Your task to perform on an android device: Do I have any events tomorrow? Image 0: 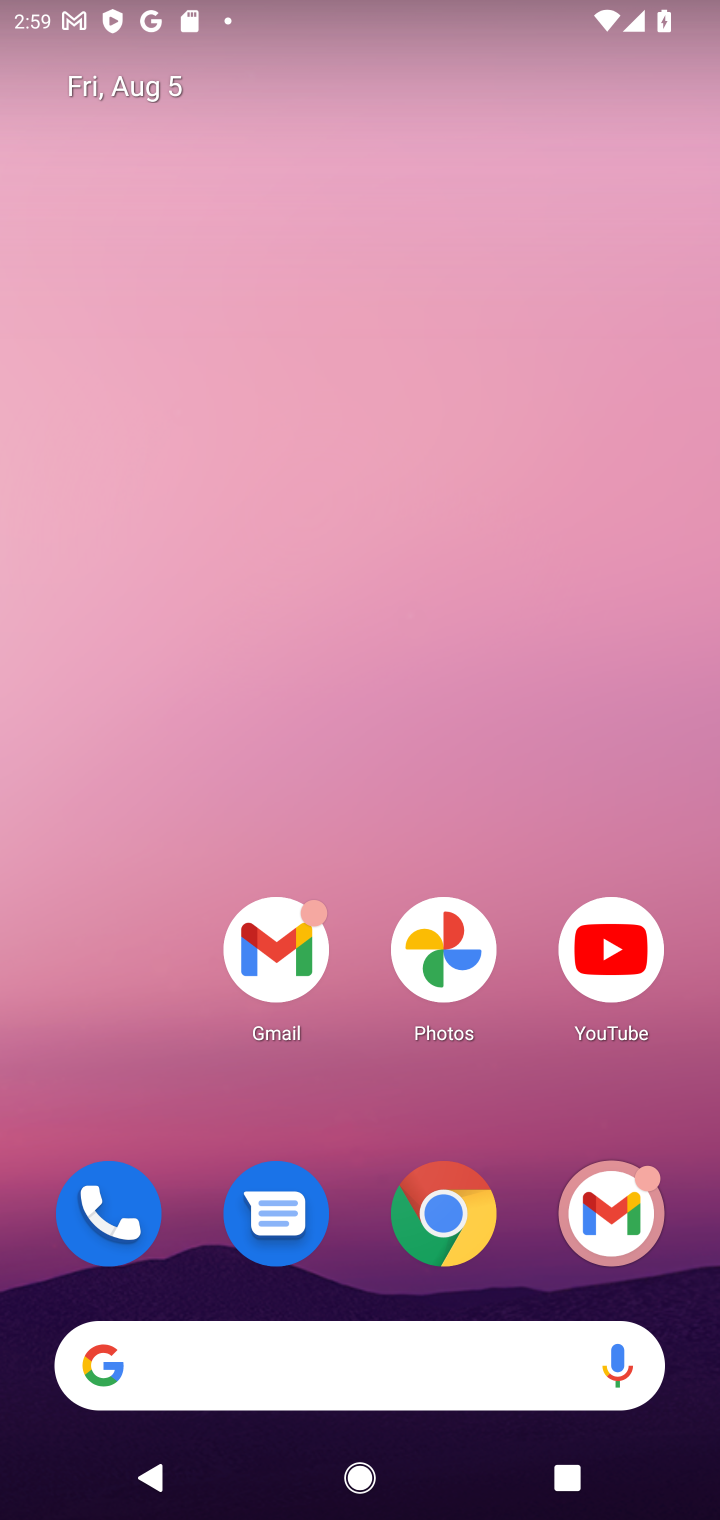
Step 0: drag from (188, 1274) to (296, 127)
Your task to perform on an android device: Do I have any events tomorrow? Image 1: 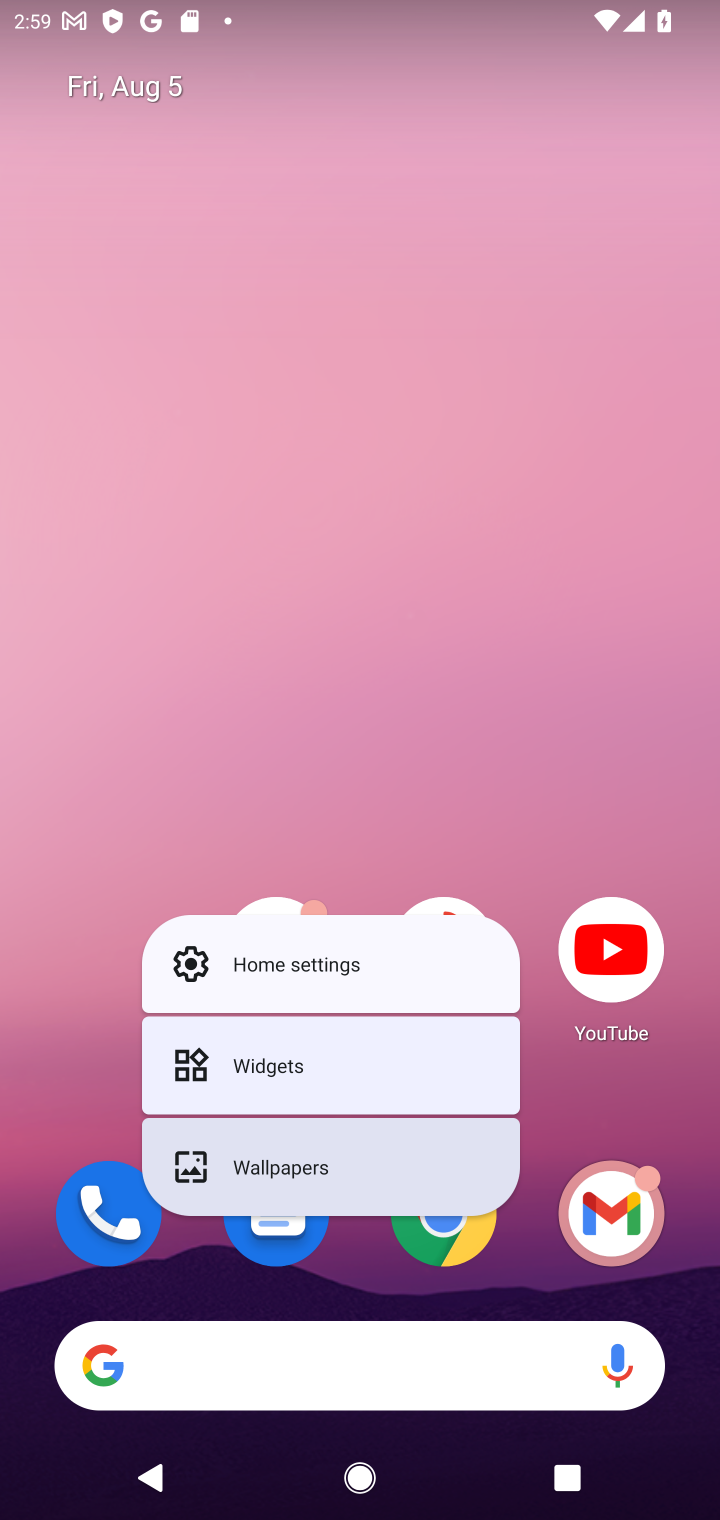
Step 1: click (312, 609)
Your task to perform on an android device: Do I have any events tomorrow? Image 2: 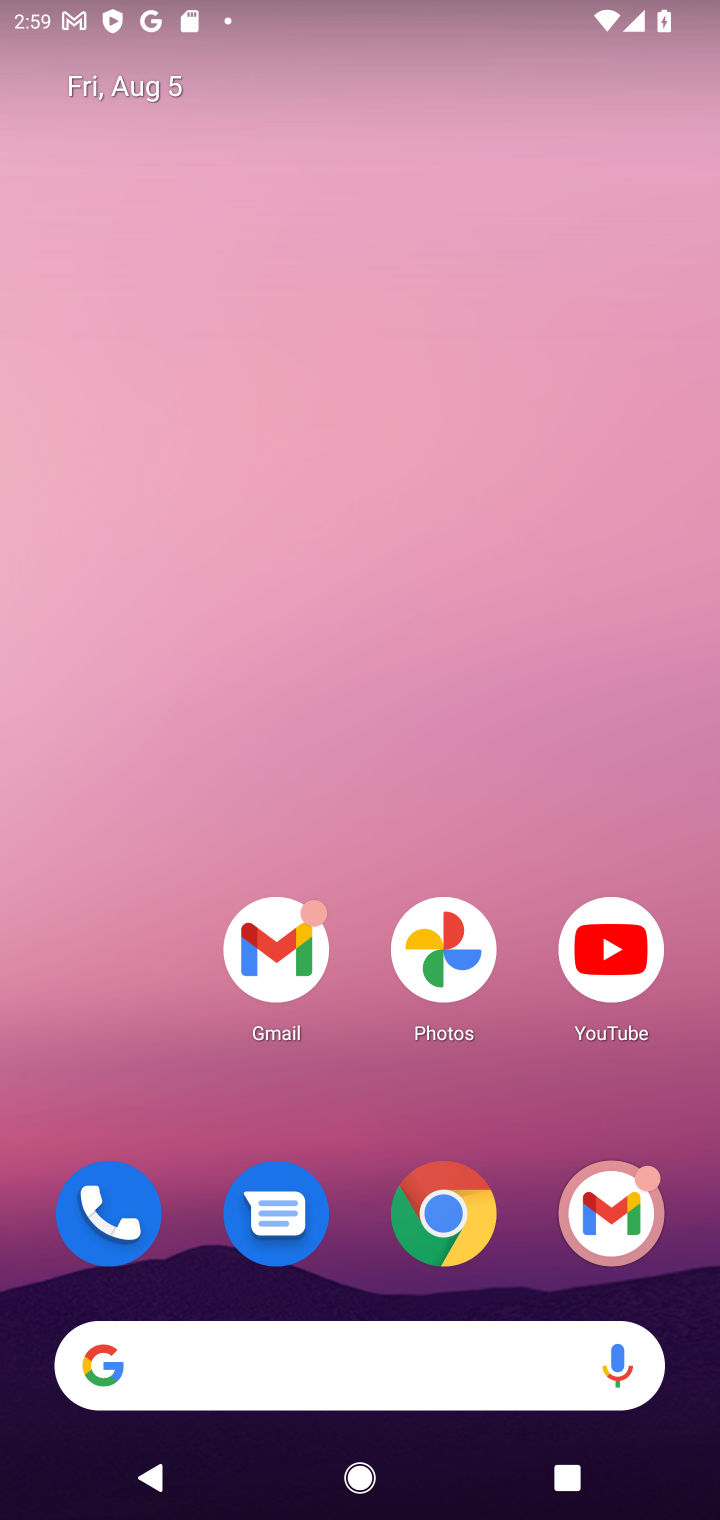
Step 2: drag from (194, 1283) to (276, 134)
Your task to perform on an android device: Do I have any events tomorrow? Image 3: 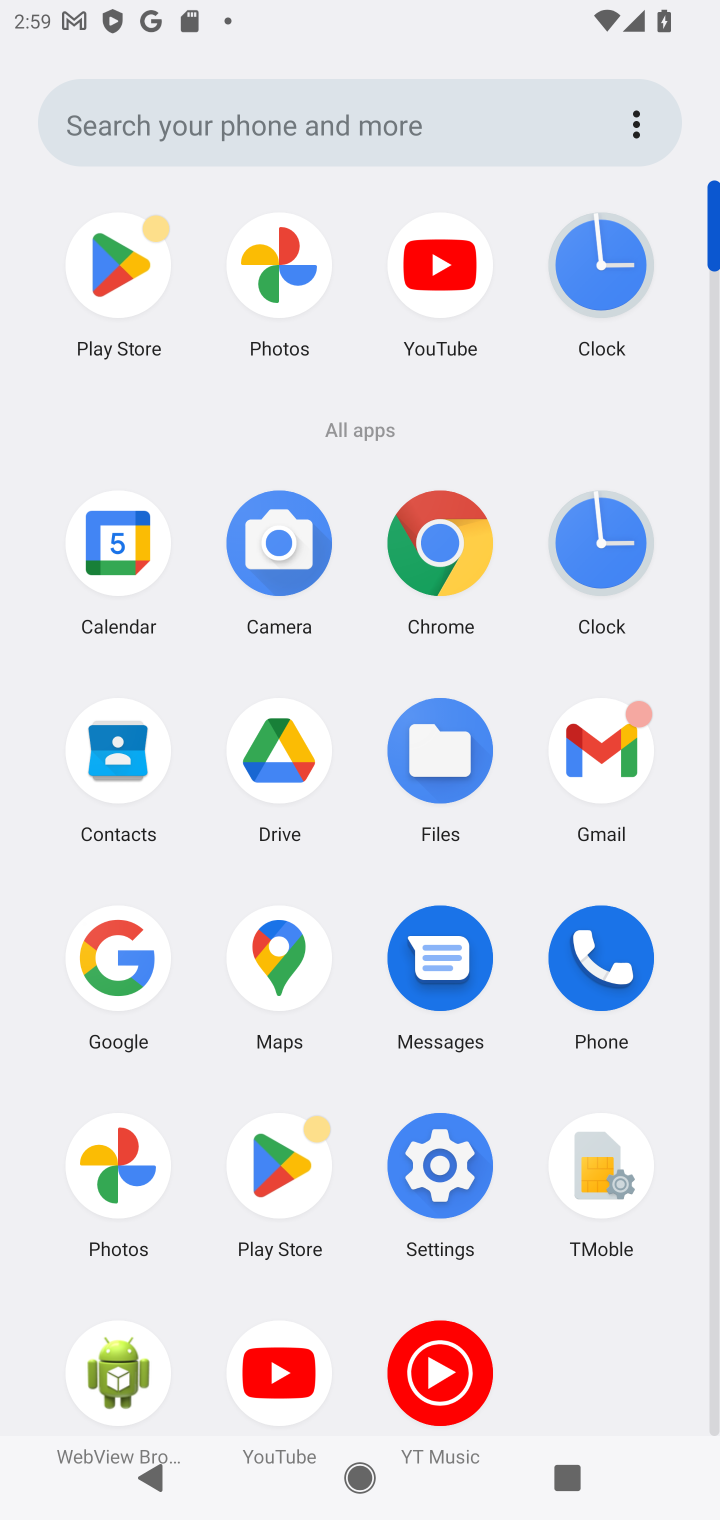
Step 3: click (130, 595)
Your task to perform on an android device: Do I have any events tomorrow? Image 4: 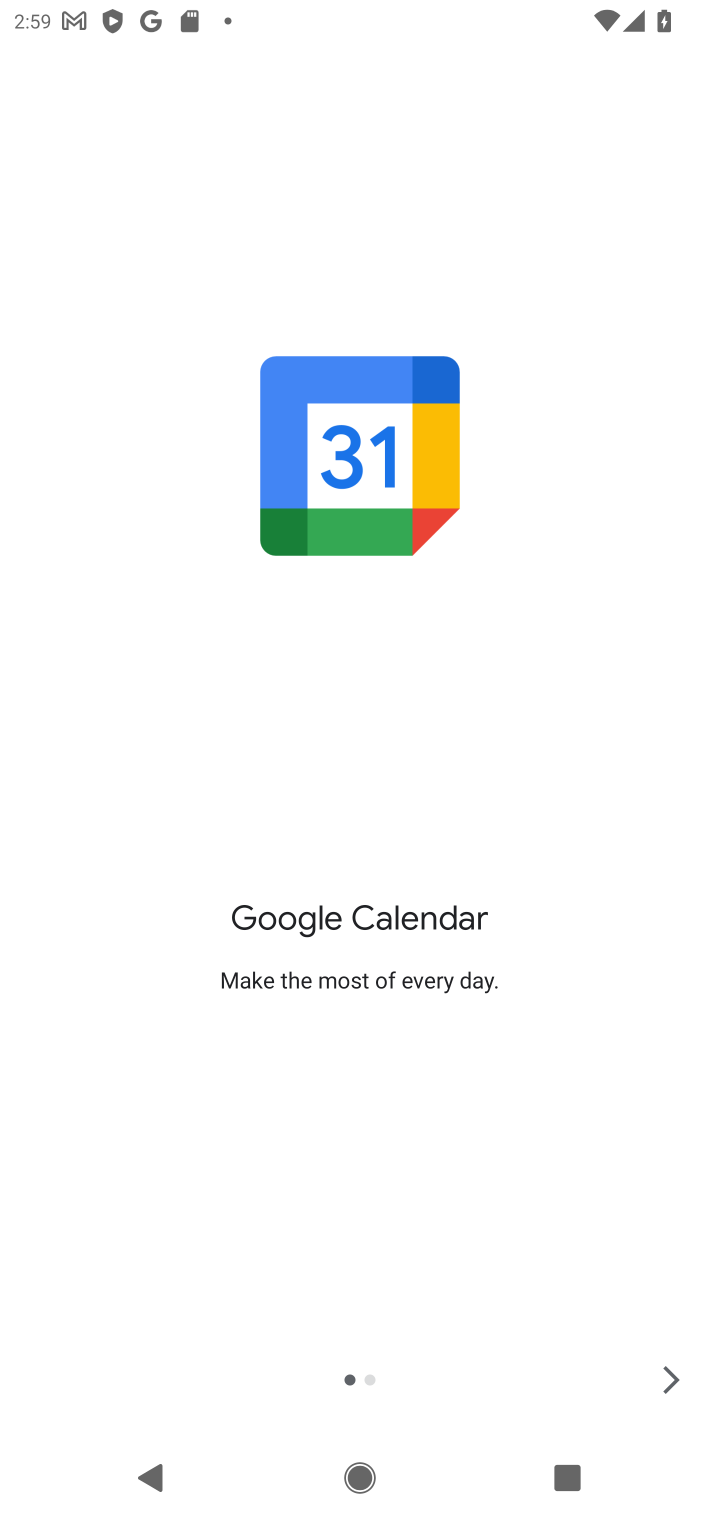
Step 4: task complete